Your task to perform on an android device: turn notification dots off Image 0: 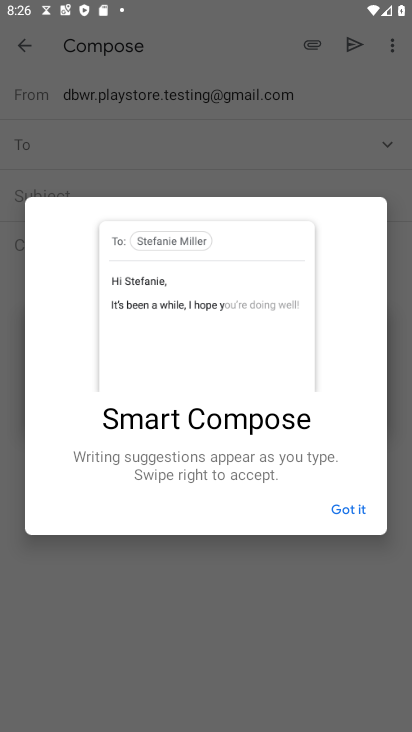
Step 0: press home button
Your task to perform on an android device: turn notification dots off Image 1: 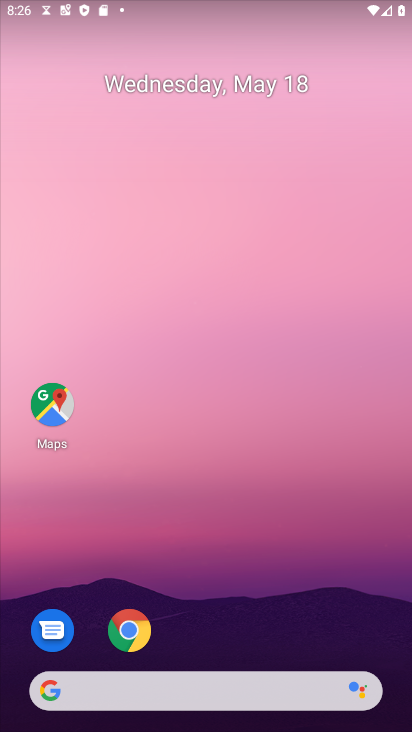
Step 1: drag from (165, 690) to (317, 219)
Your task to perform on an android device: turn notification dots off Image 2: 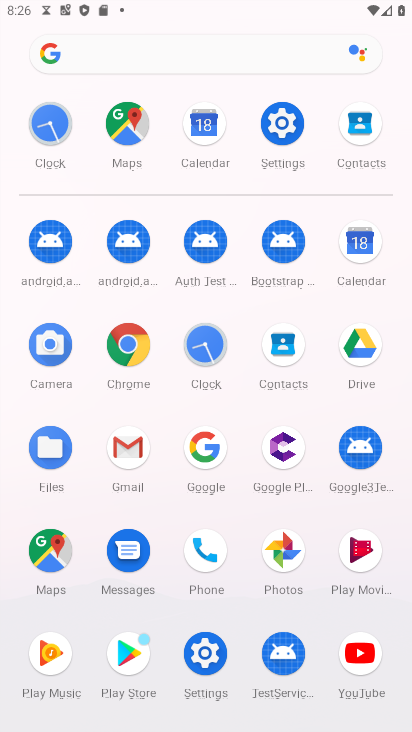
Step 2: click (279, 119)
Your task to perform on an android device: turn notification dots off Image 3: 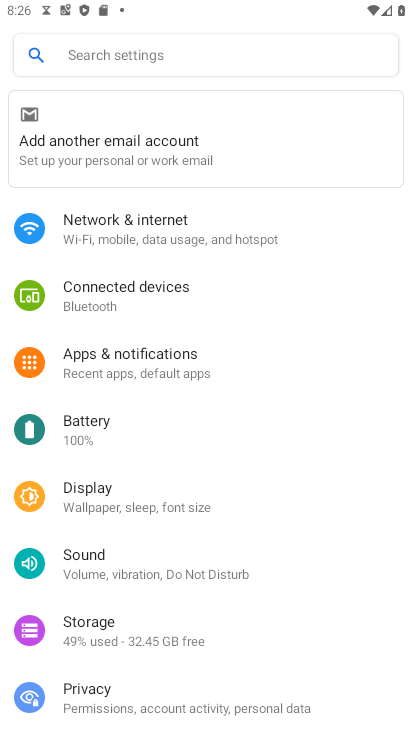
Step 3: click (155, 357)
Your task to perform on an android device: turn notification dots off Image 4: 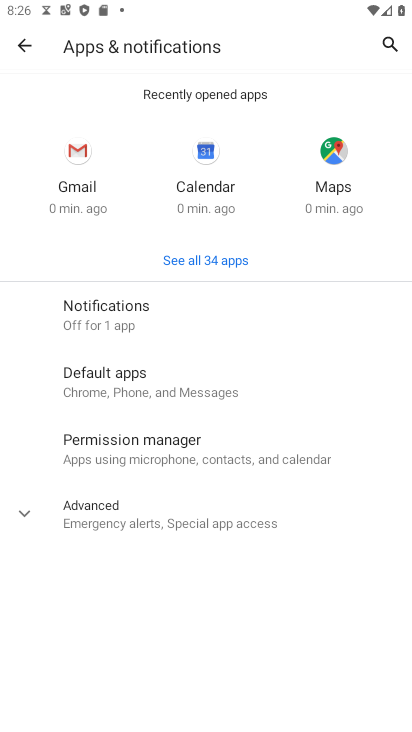
Step 4: click (124, 315)
Your task to perform on an android device: turn notification dots off Image 5: 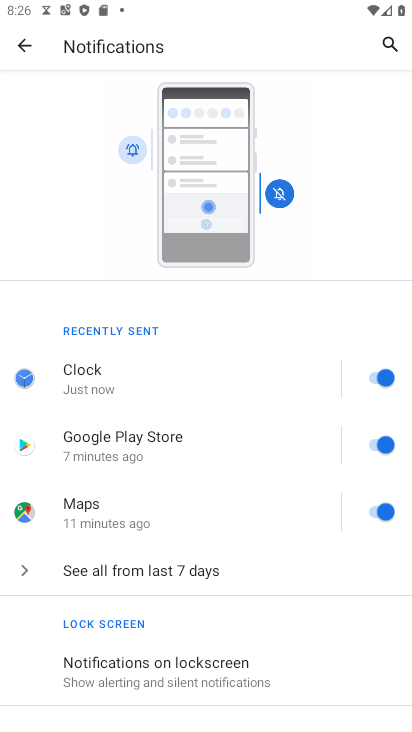
Step 5: drag from (221, 638) to (283, 221)
Your task to perform on an android device: turn notification dots off Image 6: 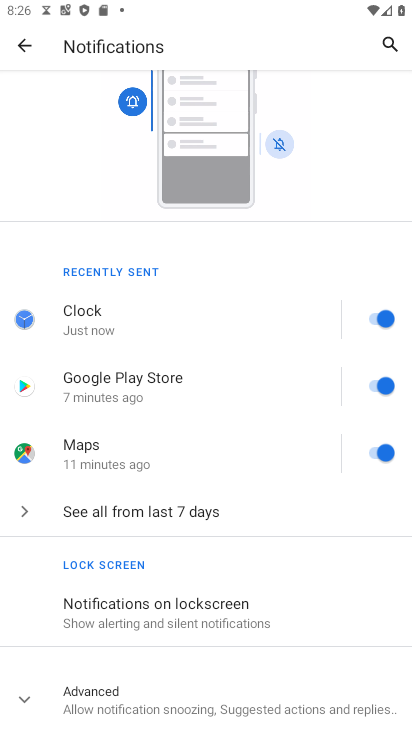
Step 6: click (137, 701)
Your task to perform on an android device: turn notification dots off Image 7: 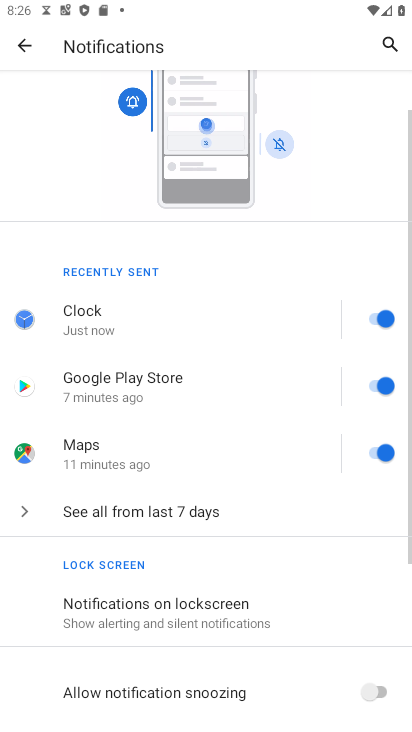
Step 7: drag from (202, 570) to (376, 92)
Your task to perform on an android device: turn notification dots off Image 8: 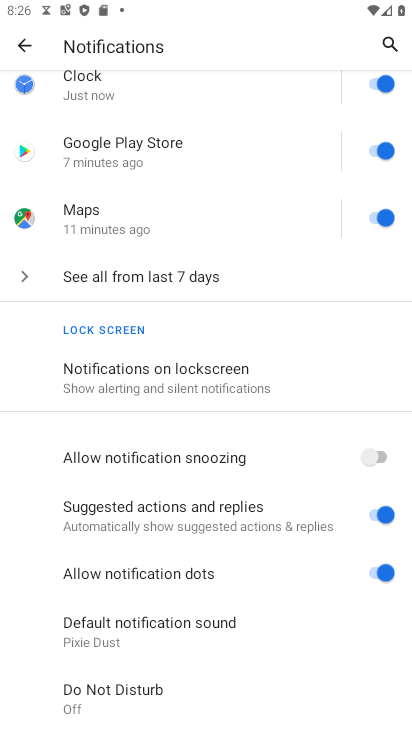
Step 8: click (373, 575)
Your task to perform on an android device: turn notification dots off Image 9: 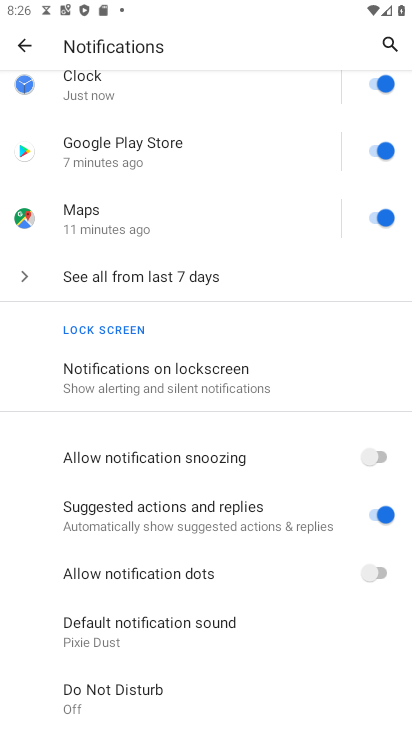
Step 9: task complete